Your task to perform on an android device: Open battery settings Image 0: 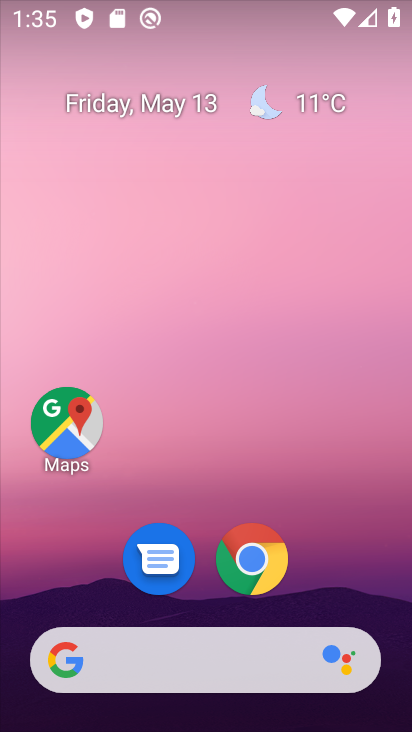
Step 0: drag from (397, 509) to (383, 364)
Your task to perform on an android device: Open battery settings Image 1: 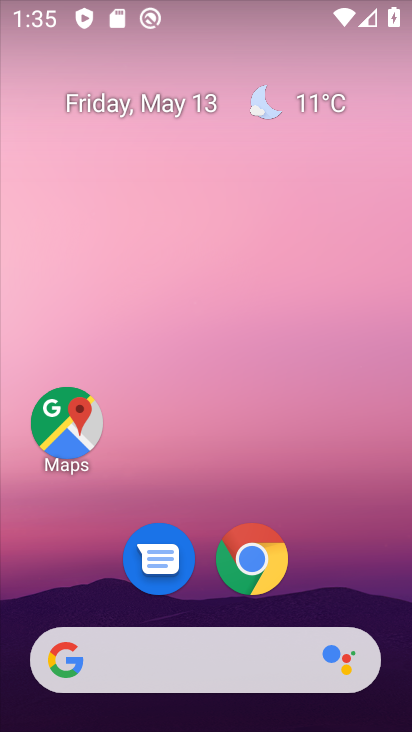
Step 1: drag from (398, 669) to (368, 215)
Your task to perform on an android device: Open battery settings Image 2: 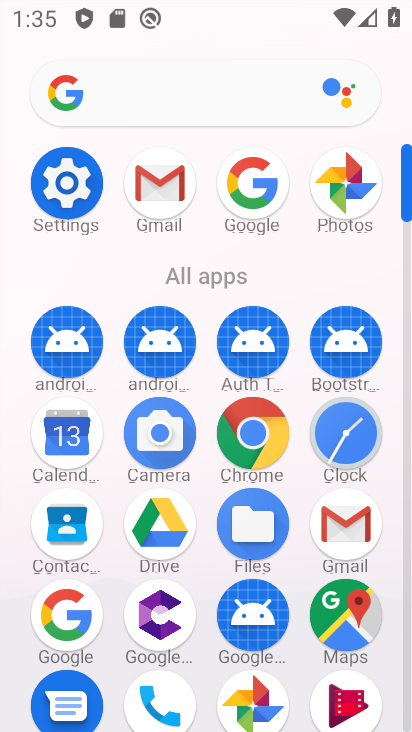
Step 2: click (57, 187)
Your task to perform on an android device: Open battery settings Image 3: 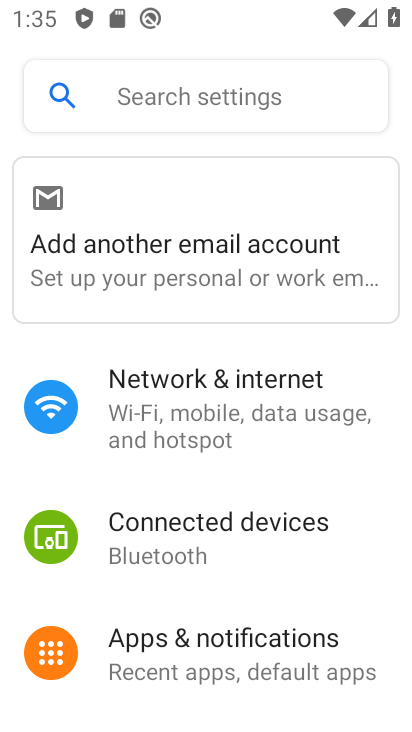
Step 3: drag from (209, 607) to (211, 383)
Your task to perform on an android device: Open battery settings Image 4: 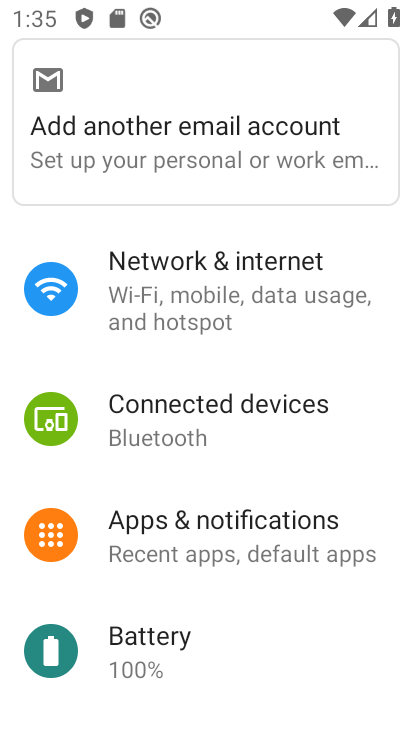
Step 4: drag from (278, 635) to (319, 399)
Your task to perform on an android device: Open battery settings Image 5: 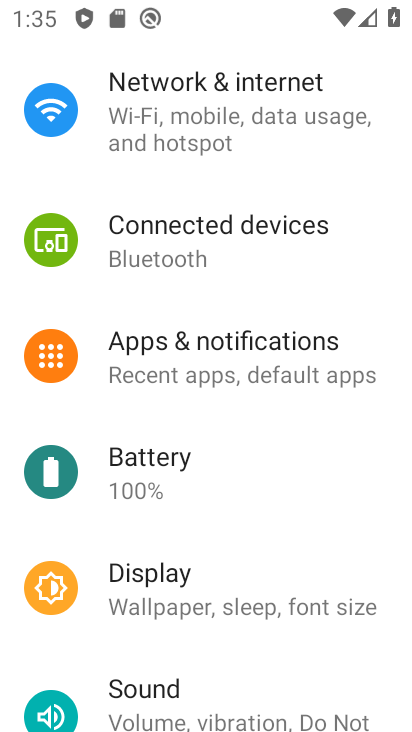
Step 5: click (130, 472)
Your task to perform on an android device: Open battery settings Image 6: 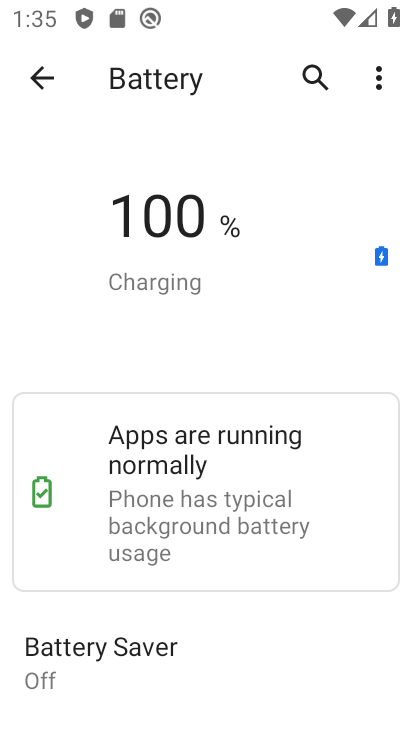
Step 6: task complete